Your task to perform on an android device: Show me productivity apps on the Play Store Image 0: 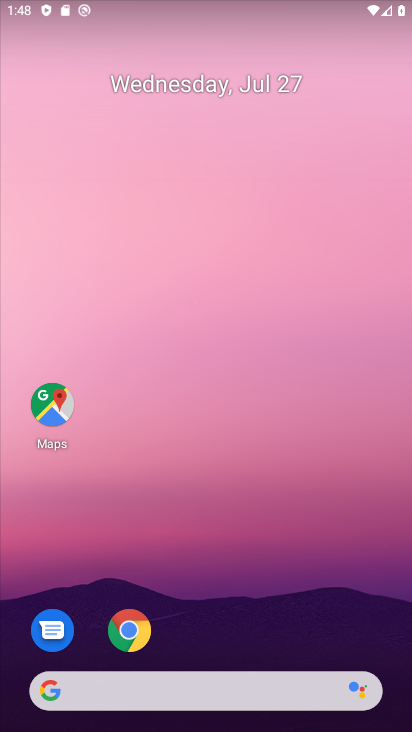
Step 0: drag from (202, 641) to (145, 157)
Your task to perform on an android device: Show me productivity apps on the Play Store Image 1: 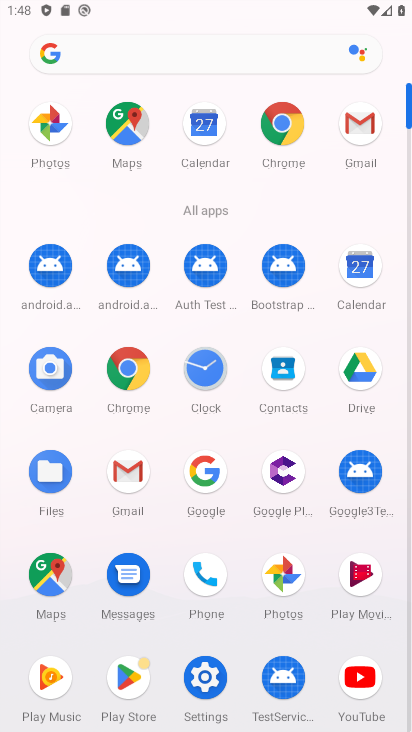
Step 1: click (134, 681)
Your task to perform on an android device: Show me productivity apps on the Play Store Image 2: 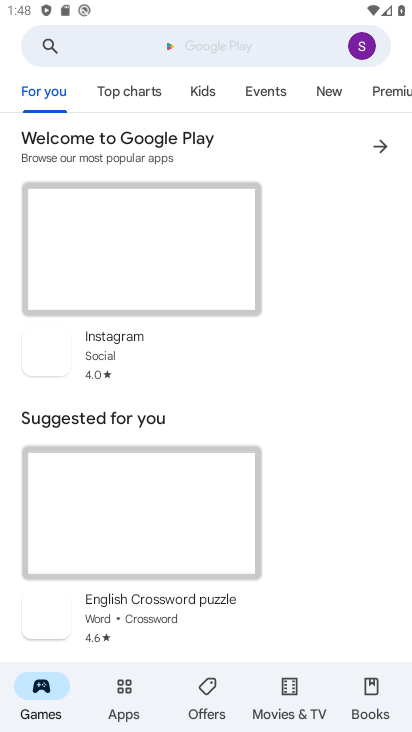
Step 2: click (125, 673)
Your task to perform on an android device: Show me productivity apps on the Play Store Image 3: 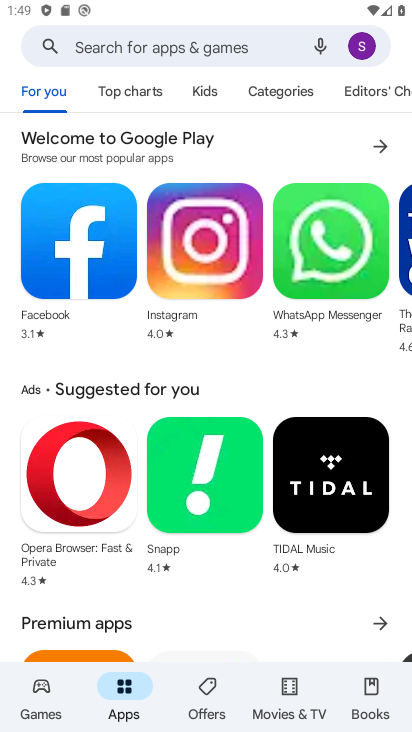
Step 3: click (261, 87)
Your task to perform on an android device: Show me productivity apps on the Play Store Image 4: 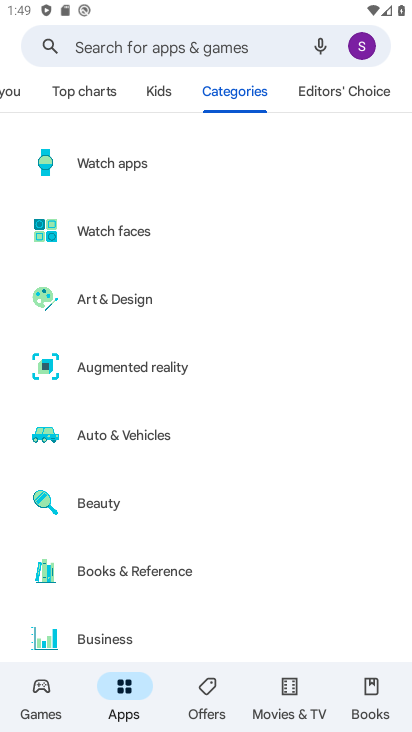
Step 4: drag from (236, 272) to (220, 105)
Your task to perform on an android device: Show me productivity apps on the Play Store Image 5: 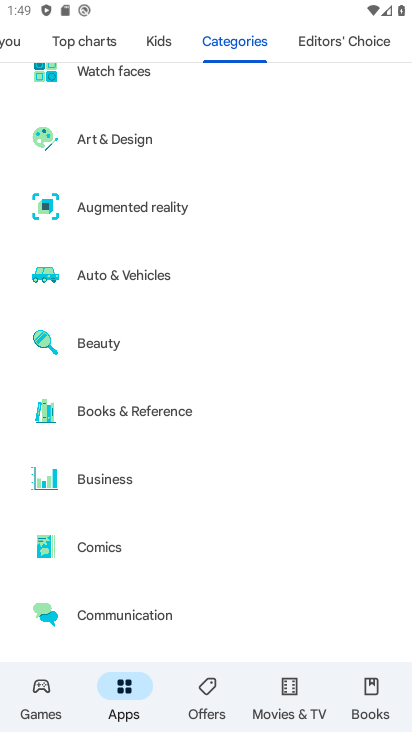
Step 5: drag from (206, 483) to (212, 39)
Your task to perform on an android device: Show me productivity apps on the Play Store Image 6: 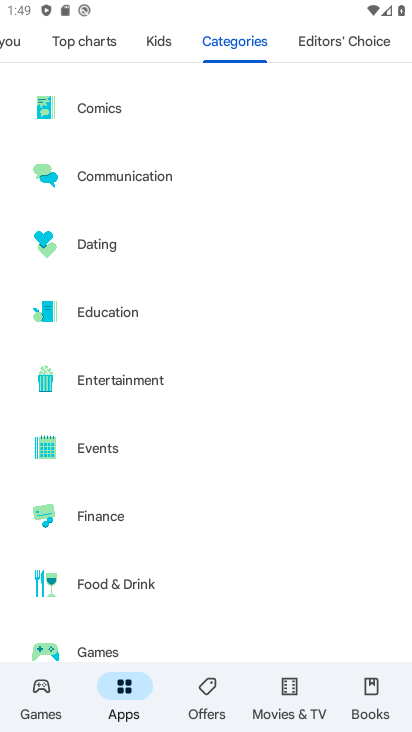
Step 6: drag from (182, 547) to (162, 232)
Your task to perform on an android device: Show me productivity apps on the Play Store Image 7: 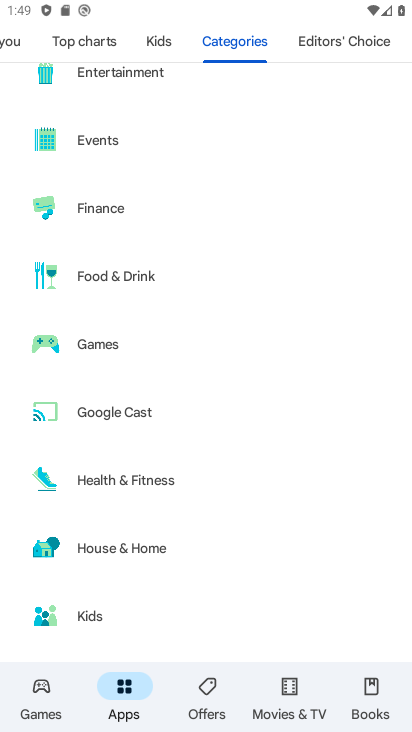
Step 7: drag from (181, 568) to (146, 26)
Your task to perform on an android device: Show me productivity apps on the Play Store Image 8: 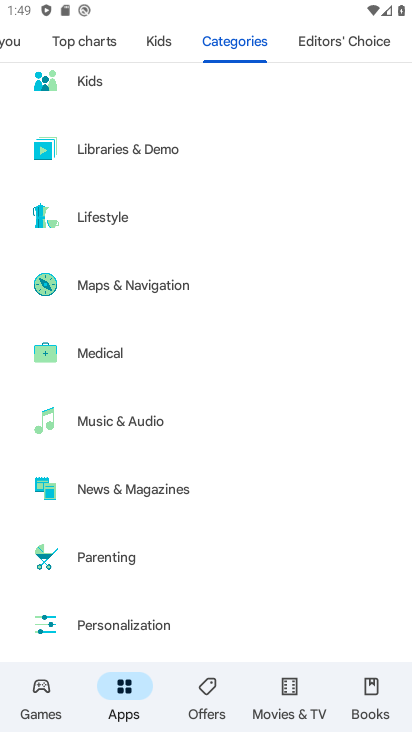
Step 8: drag from (196, 565) to (171, 202)
Your task to perform on an android device: Show me productivity apps on the Play Store Image 9: 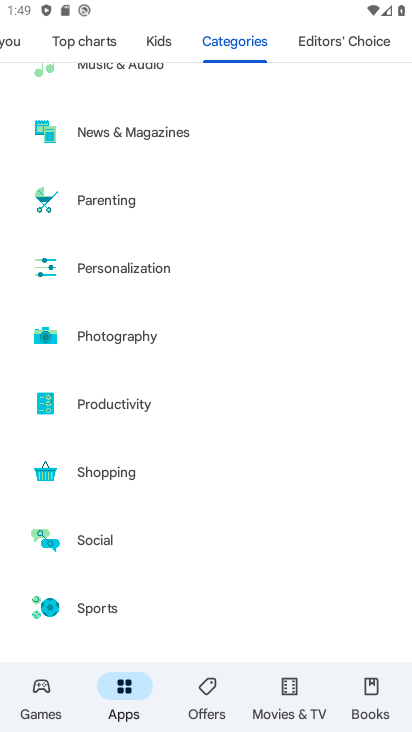
Step 9: click (94, 405)
Your task to perform on an android device: Show me productivity apps on the Play Store Image 10: 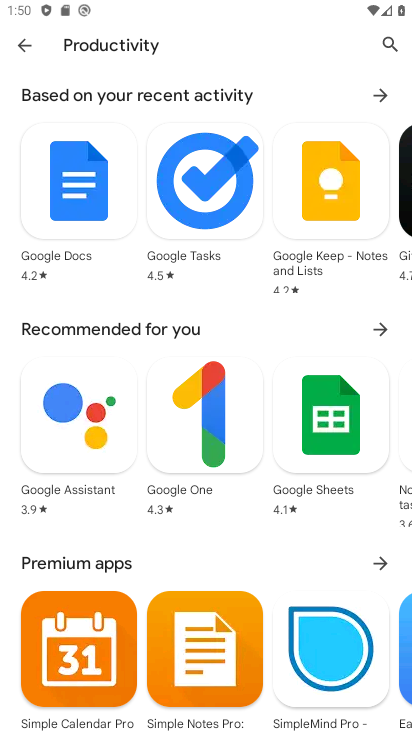
Step 10: task complete